Your task to perform on an android device: Show me popular videos on Youtube Image 0: 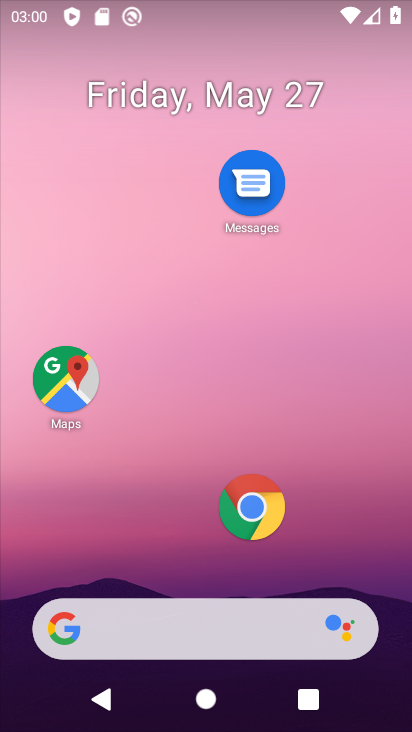
Step 0: drag from (192, 535) to (233, 6)
Your task to perform on an android device: Show me popular videos on Youtube Image 1: 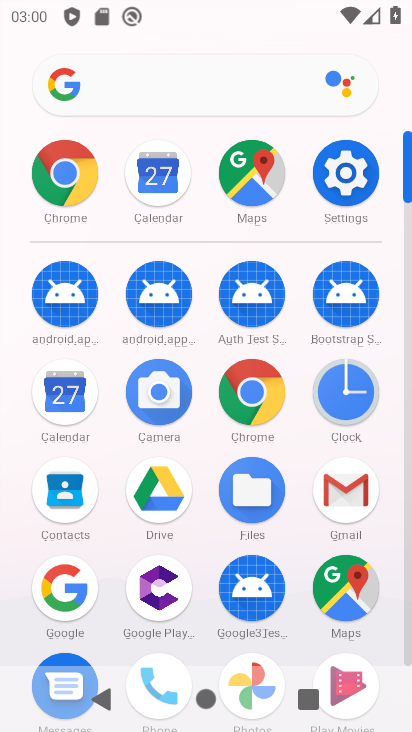
Step 1: drag from (191, 636) to (204, 191)
Your task to perform on an android device: Show me popular videos on Youtube Image 2: 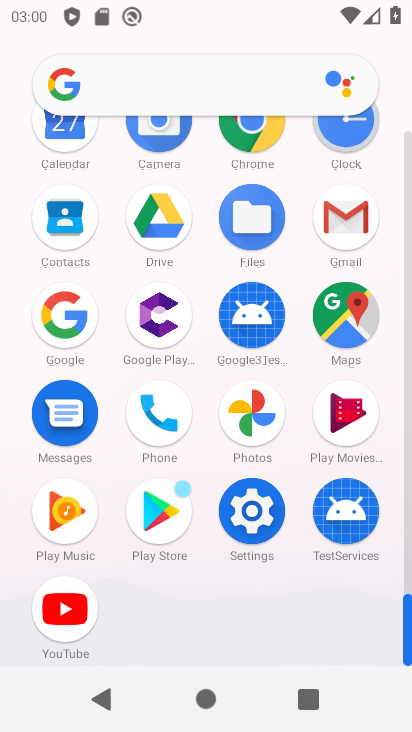
Step 2: click (41, 610)
Your task to perform on an android device: Show me popular videos on Youtube Image 3: 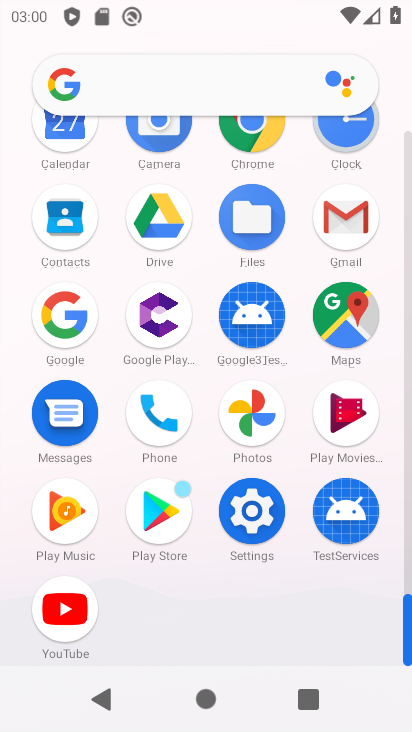
Step 3: click (41, 610)
Your task to perform on an android device: Show me popular videos on Youtube Image 4: 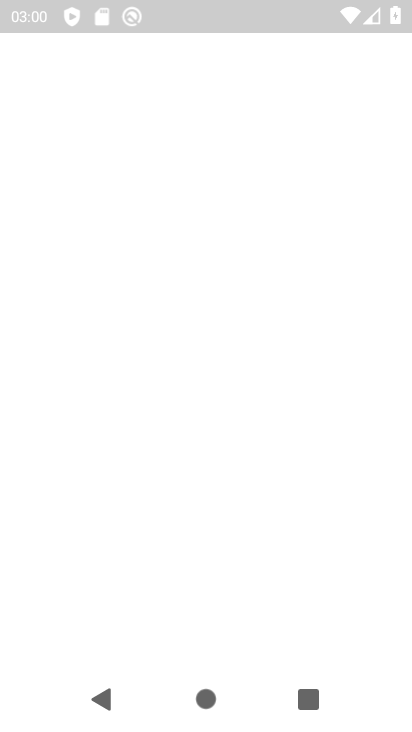
Step 4: task complete